Your task to perform on an android device: open a new tab in the chrome app Image 0: 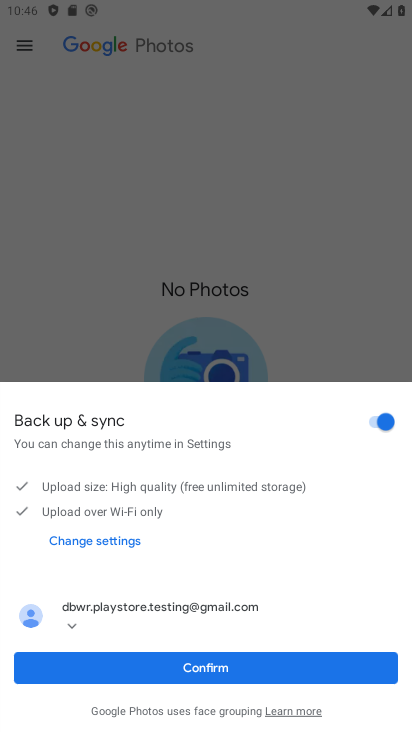
Step 0: click (208, 678)
Your task to perform on an android device: open a new tab in the chrome app Image 1: 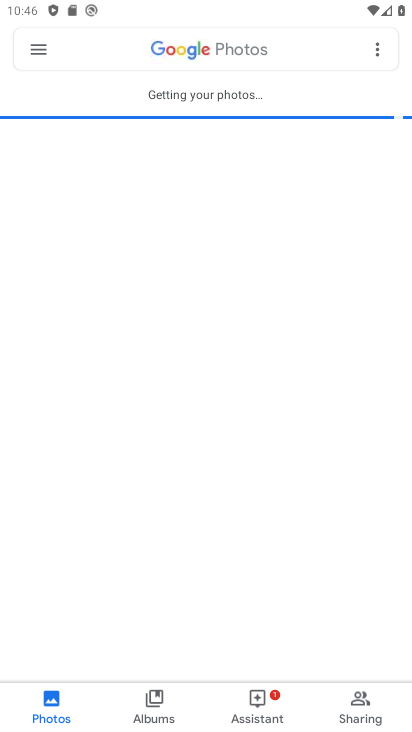
Step 1: press home button
Your task to perform on an android device: open a new tab in the chrome app Image 2: 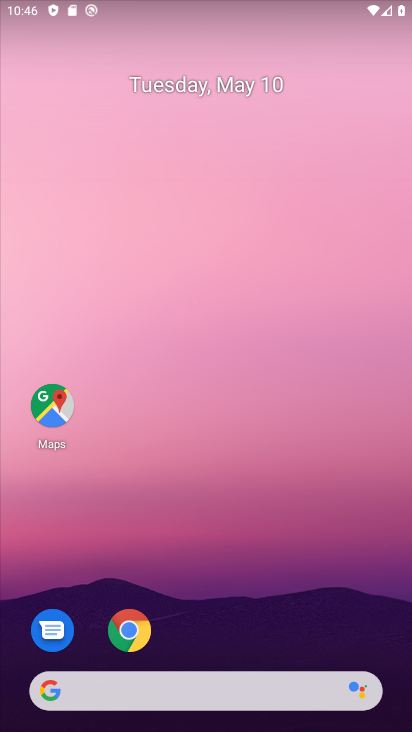
Step 2: click (126, 641)
Your task to perform on an android device: open a new tab in the chrome app Image 3: 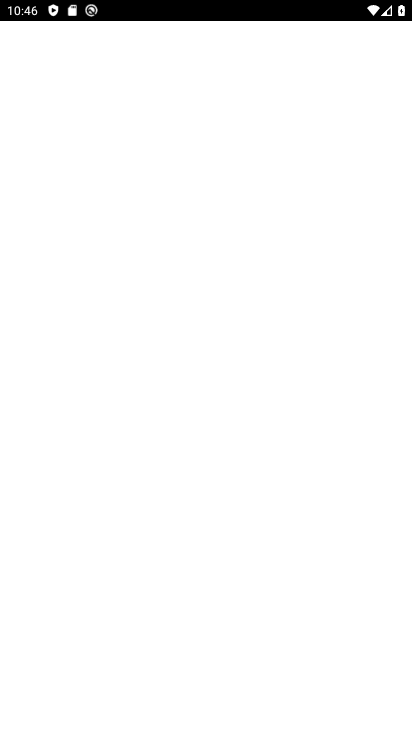
Step 3: click (128, 633)
Your task to perform on an android device: open a new tab in the chrome app Image 4: 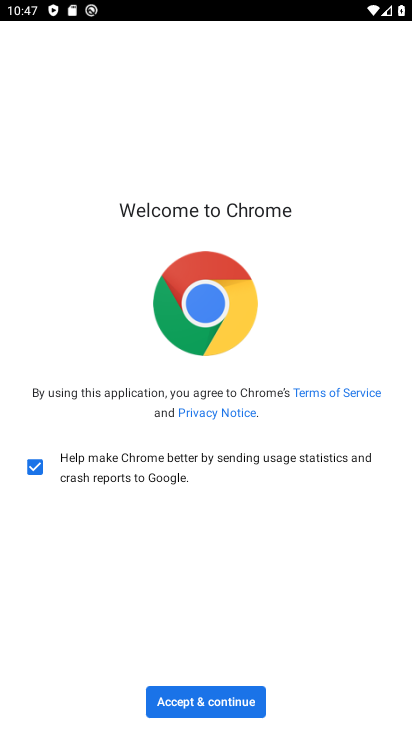
Step 4: click (223, 705)
Your task to perform on an android device: open a new tab in the chrome app Image 5: 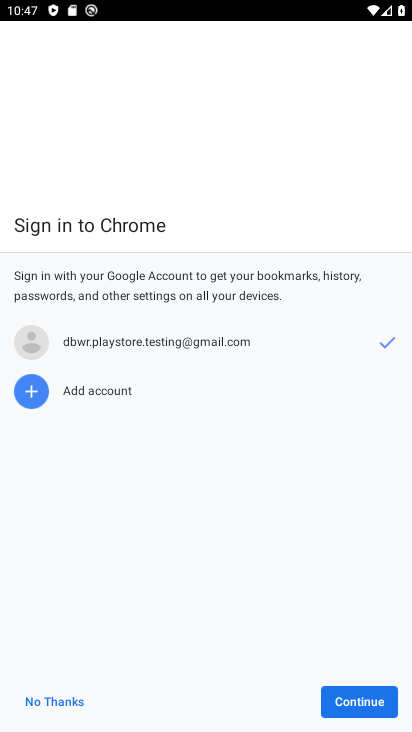
Step 5: click (348, 696)
Your task to perform on an android device: open a new tab in the chrome app Image 6: 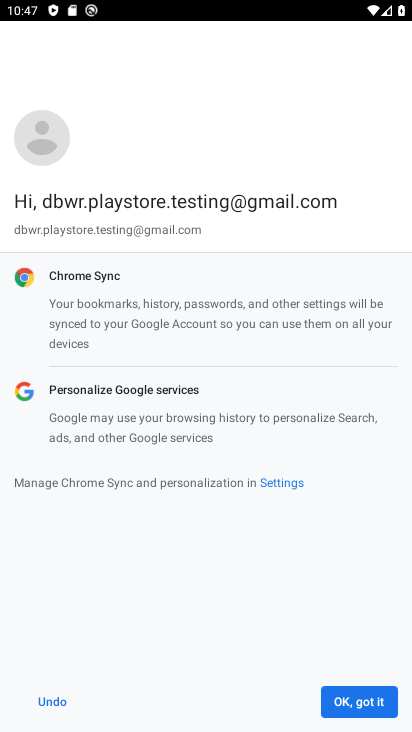
Step 6: click (349, 697)
Your task to perform on an android device: open a new tab in the chrome app Image 7: 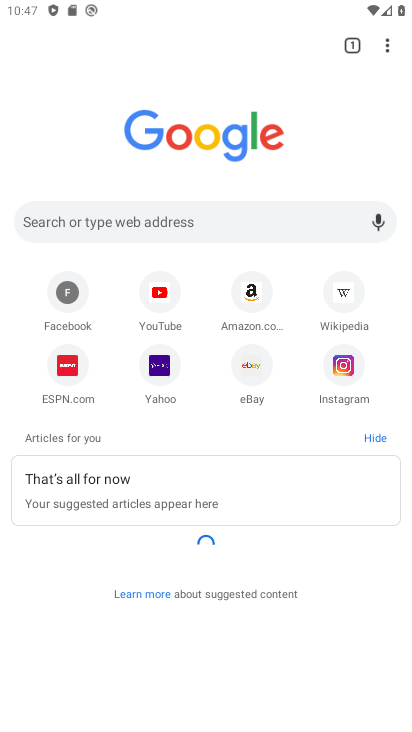
Step 7: task complete